Your task to perform on an android device: Open settings on Google Maps Image 0: 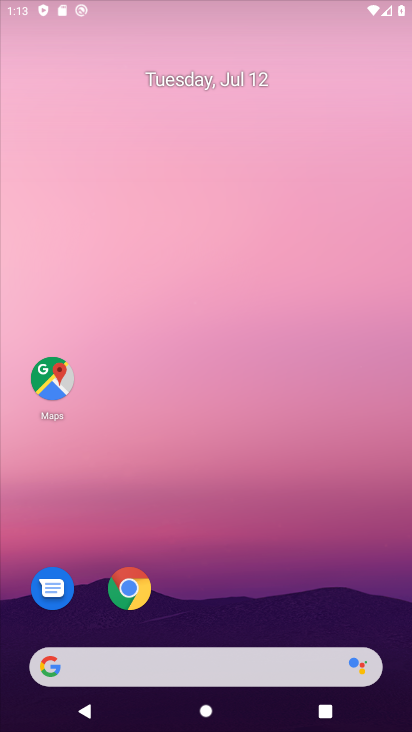
Step 0: drag from (180, 603) to (247, 111)
Your task to perform on an android device: Open settings on Google Maps Image 1: 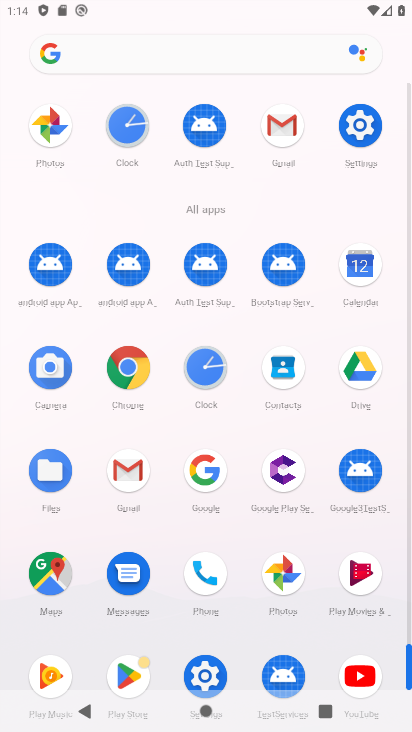
Step 1: click (60, 582)
Your task to perform on an android device: Open settings on Google Maps Image 2: 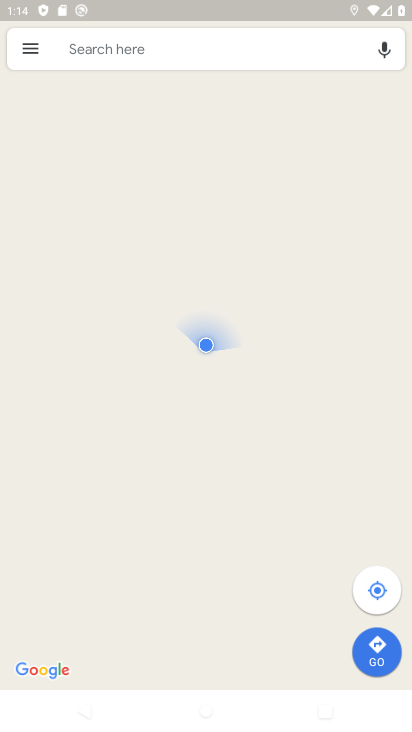
Step 2: click (24, 44)
Your task to perform on an android device: Open settings on Google Maps Image 3: 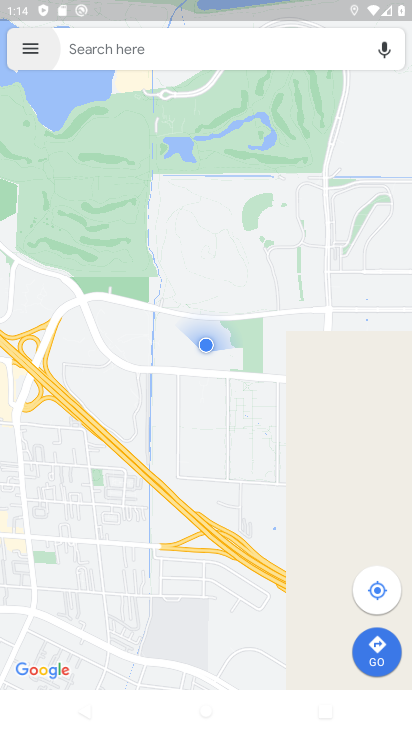
Step 3: click (28, 47)
Your task to perform on an android device: Open settings on Google Maps Image 4: 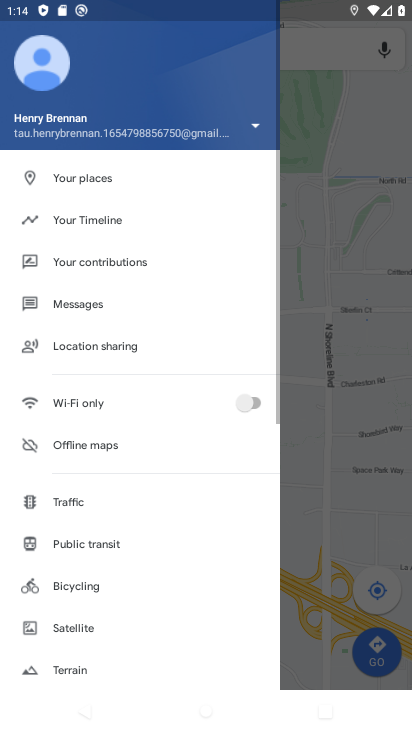
Step 4: drag from (97, 642) to (227, 176)
Your task to perform on an android device: Open settings on Google Maps Image 5: 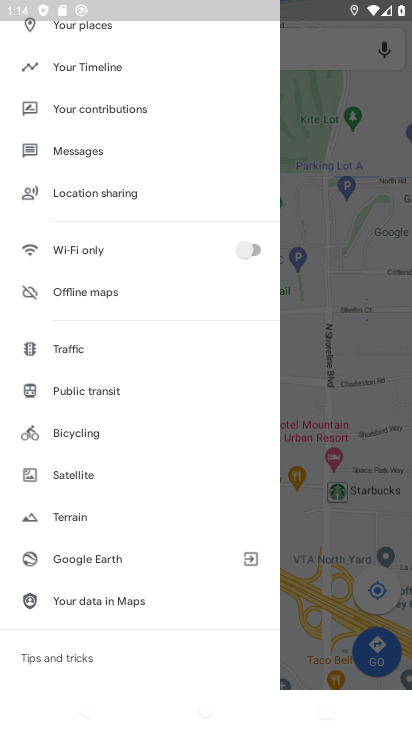
Step 5: drag from (122, 552) to (227, 230)
Your task to perform on an android device: Open settings on Google Maps Image 6: 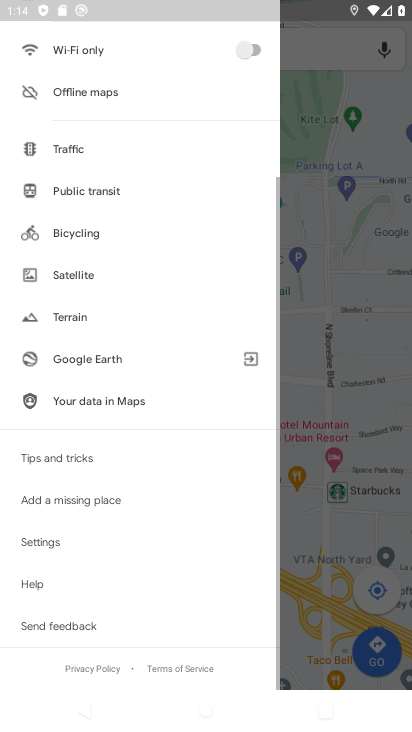
Step 6: click (59, 542)
Your task to perform on an android device: Open settings on Google Maps Image 7: 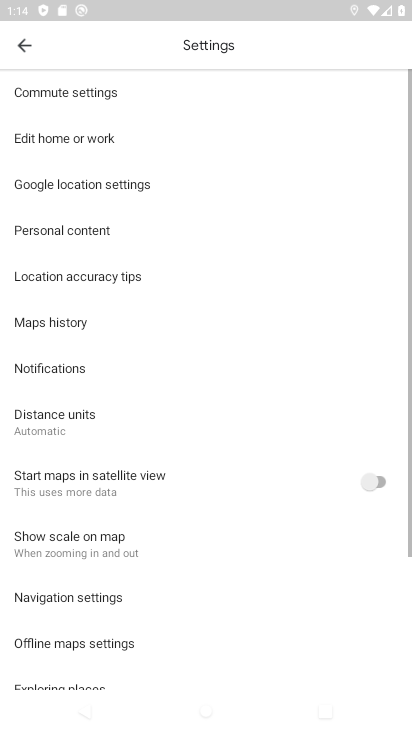
Step 7: task complete